Your task to perform on an android device: Open Youtube and go to the subscriptions tab Image 0: 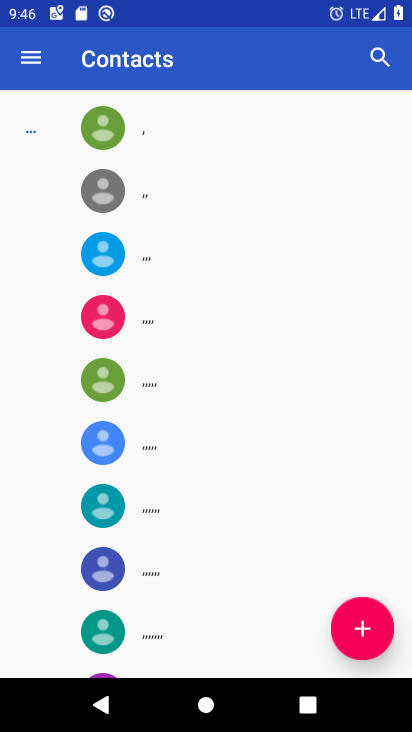
Step 0: press home button
Your task to perform on an android device: Open Youtube and go to the subscriptions tab Image 1: 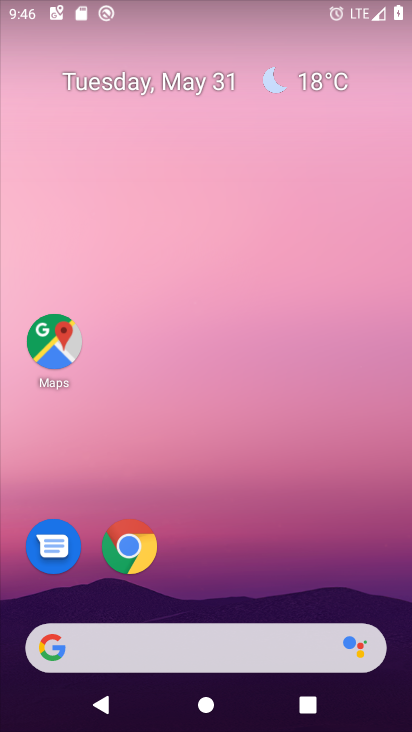
Step 1: drag from (192, 579) to (269, 25)
Your task to perform on an android device: Open Youtube and go to the subscriptions tab Image 2: 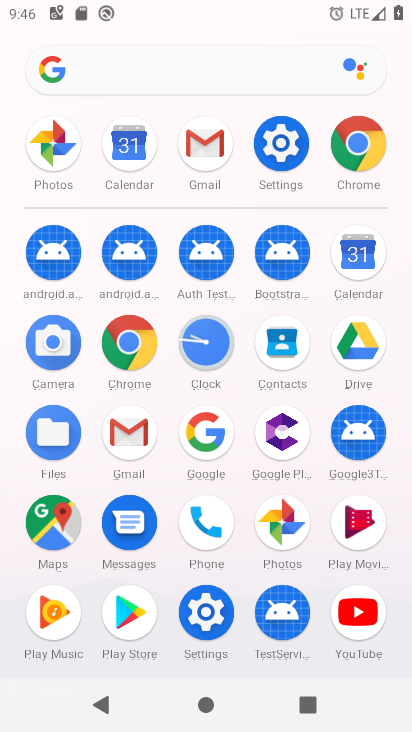
Step 2: click (355, 635)
Your task to perform on an android device: Open Youtube and go to the subscriptions tab Image 3: 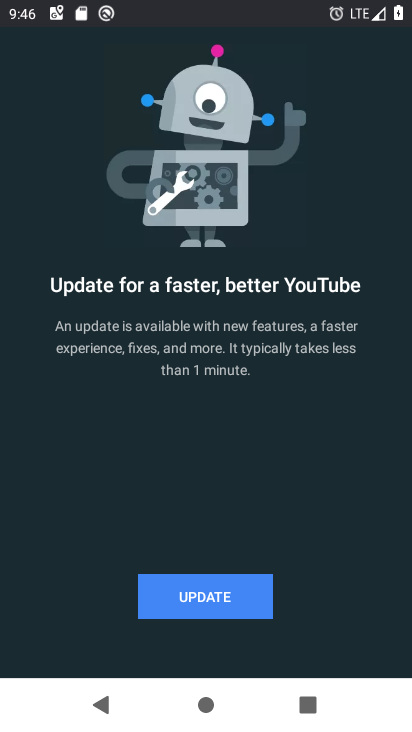
Step 3: click (221, 603)
Your task to perform on an android device: Open Youtube and go to the subscriptions tab Image 4: 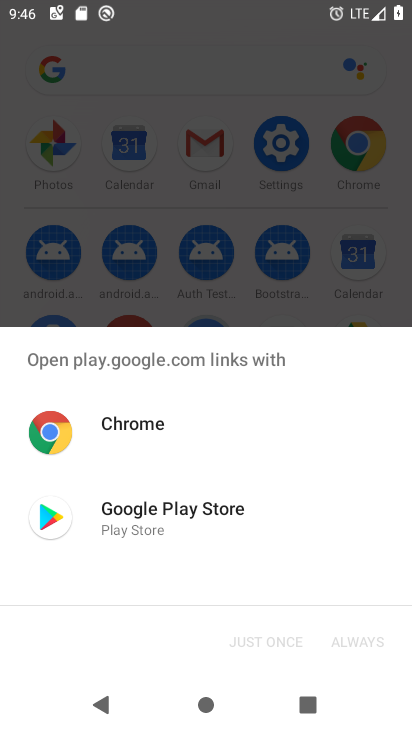
Step 4: click (145, 527)
Your task to perform on an android device: Open Youtube and go to the subscriptions tab Image 5: 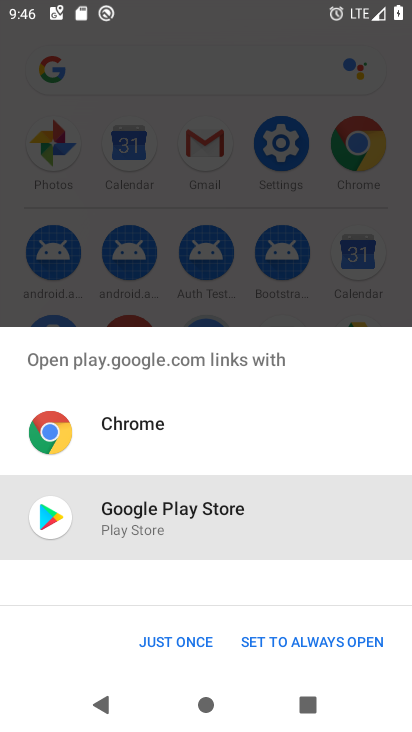
Step 5: click (160, 639)
Your task to perform on an android device: Open Youtube and go to the subscriptions tab Image 6: 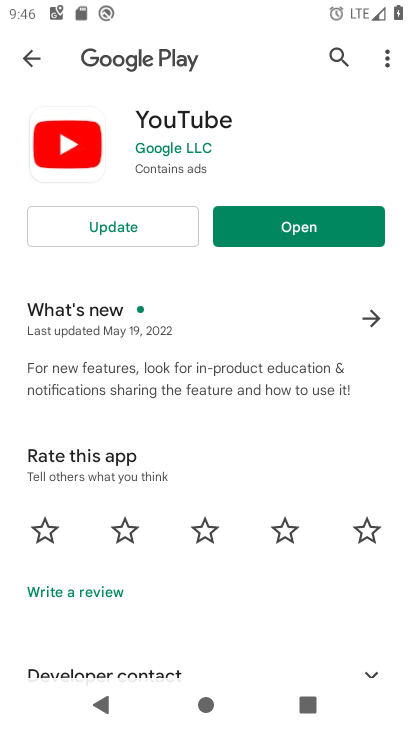
Step 6: click (119, 226)
Your task to perform on an android device: Open Youtube and go to the subscriptions tab Image 7: 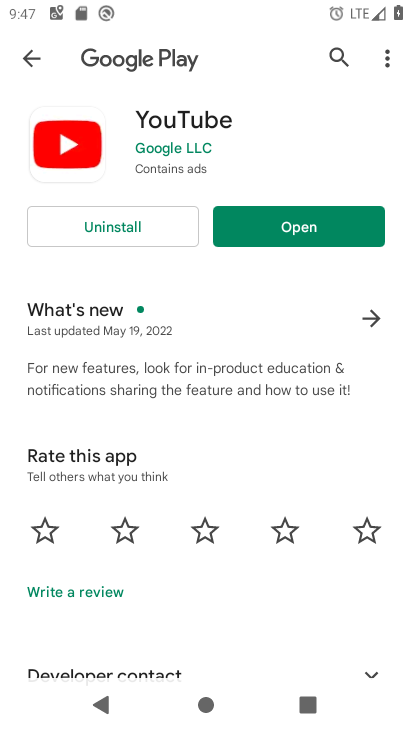
Step 7: click (298, 229)
Your task to perform on an android device: Open Youtube and go to the subscriptions tab Image 8: 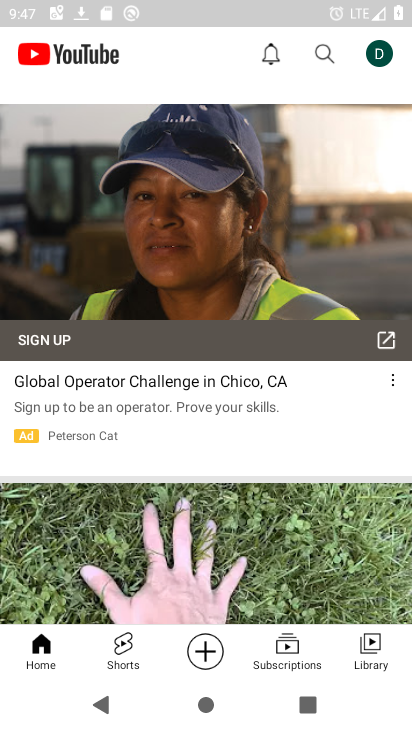
Step 8: click (300, 653)
Your task to perform on an android device: Open Youtube and go to the subscriptions tab Image 9: 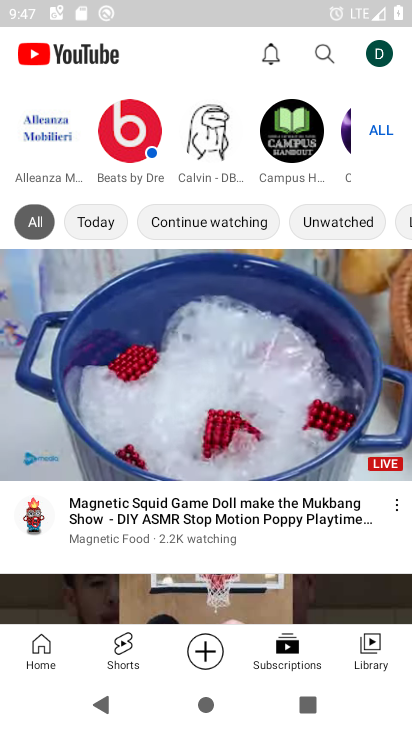
Step 9: task complete